Your task to perform on an android device: Go to internet settings Image 0: 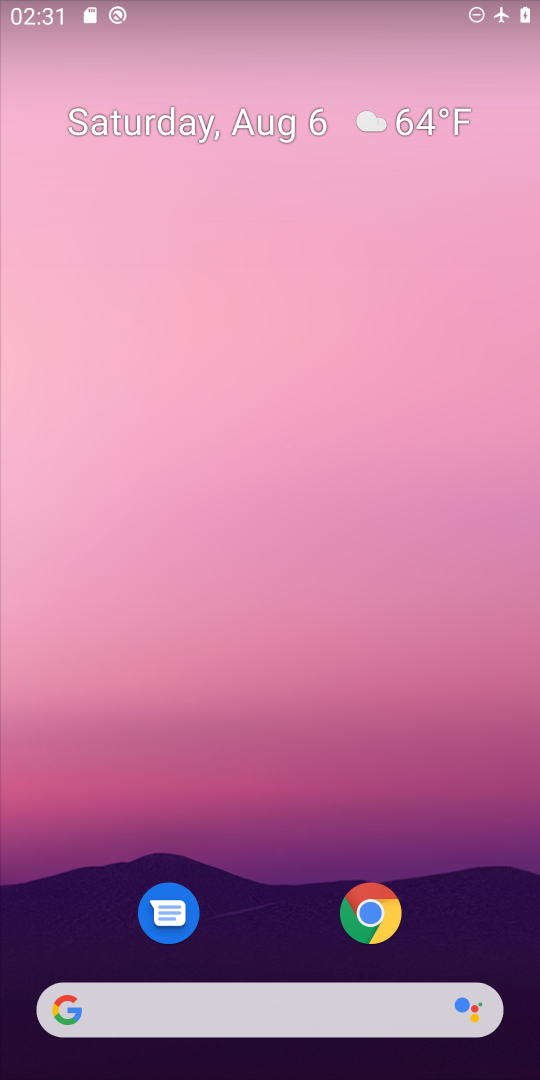
Step 0: press home button
Your task to perform on an android device: Go to internet settings Image 1: 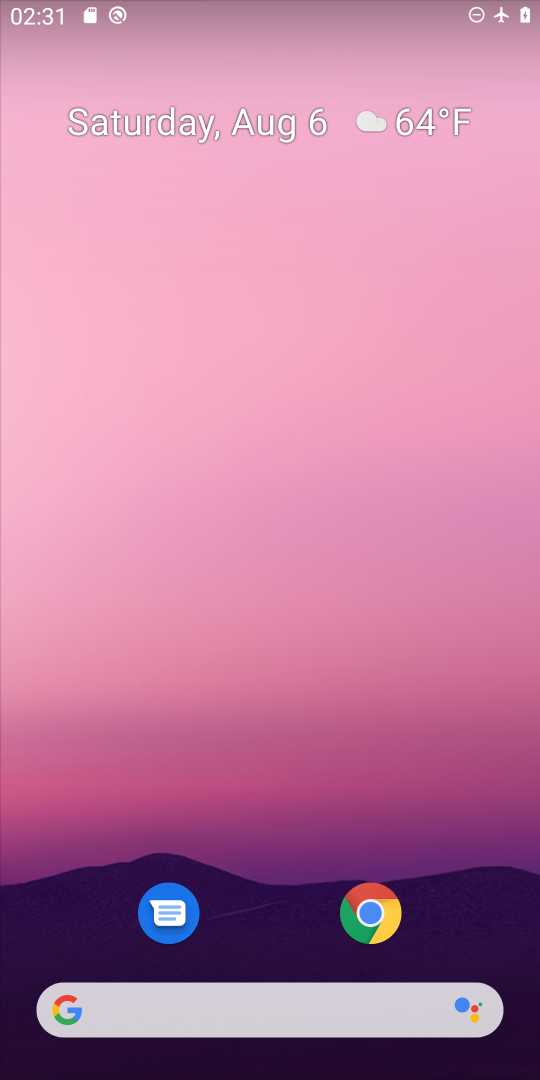
Step 1: drag from (456, 922) to (447, 277)
Your task to perform on an android device: Go to internet settings Image 2: 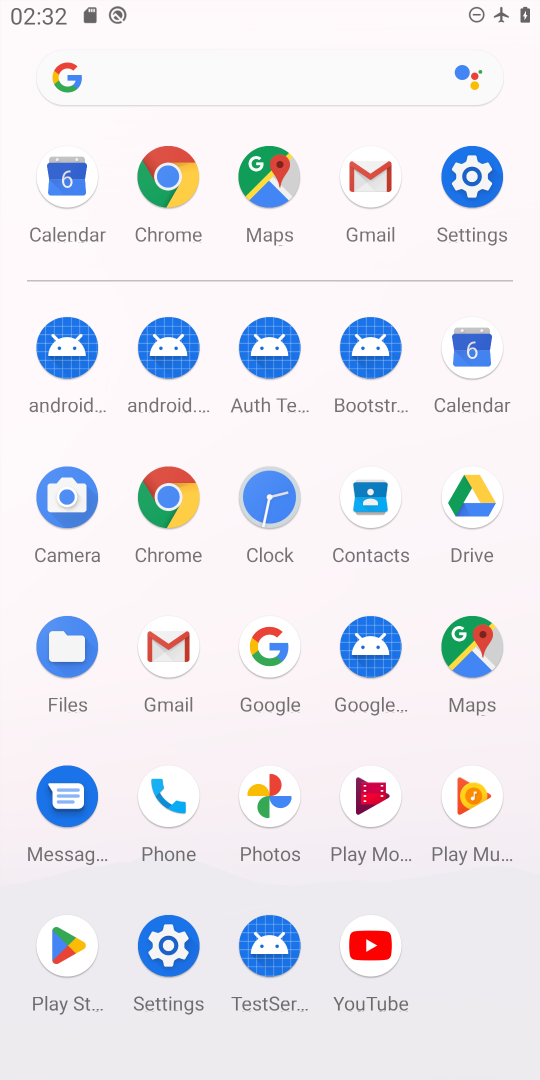
Step 2: click (479, 183)
Your task to perform on an android device: Go to internet settings Image 3: 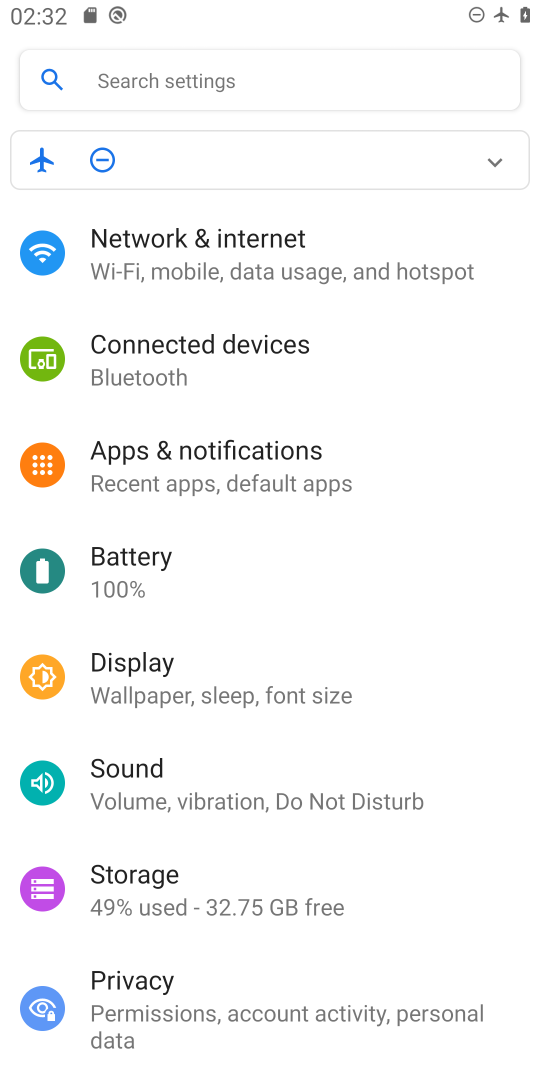
Step 3: drag from (441, 580) to (444, 449)
Your task to perform on an android device: Go to internet settings Image 4: 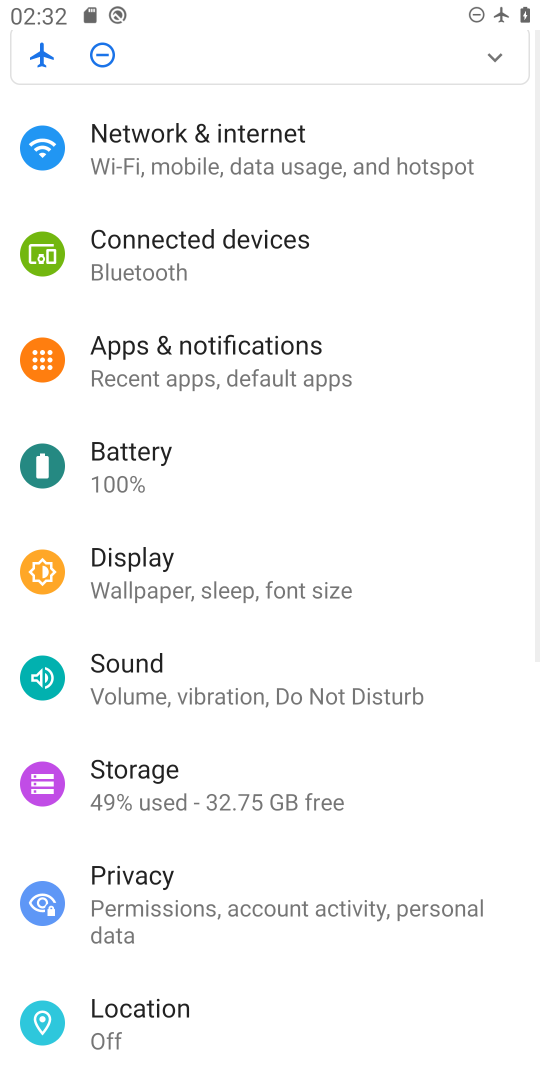
Step 4: drag from (442, 640) to (444, 461)
Your task to perform on an android device: Go to internet settings Image 5: 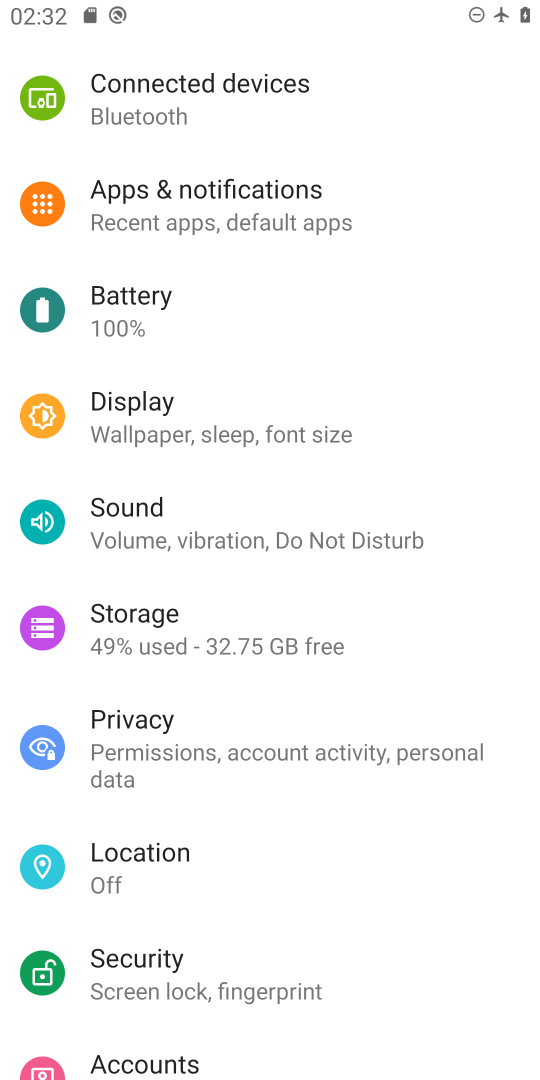
Step 5: drag from (467, 706) to (475, 509)
Your task to perform on an android device: Go to internet settings Image 6: 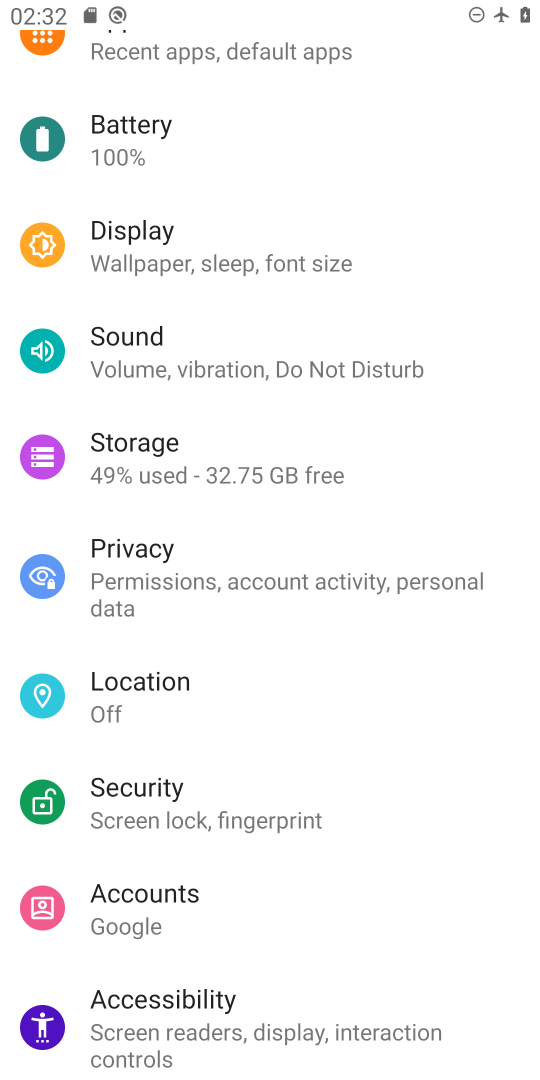
Step 6: drag from (458, 647) to (449, 456)
Your task to perform on an android device: Go to internet settings Image 7: 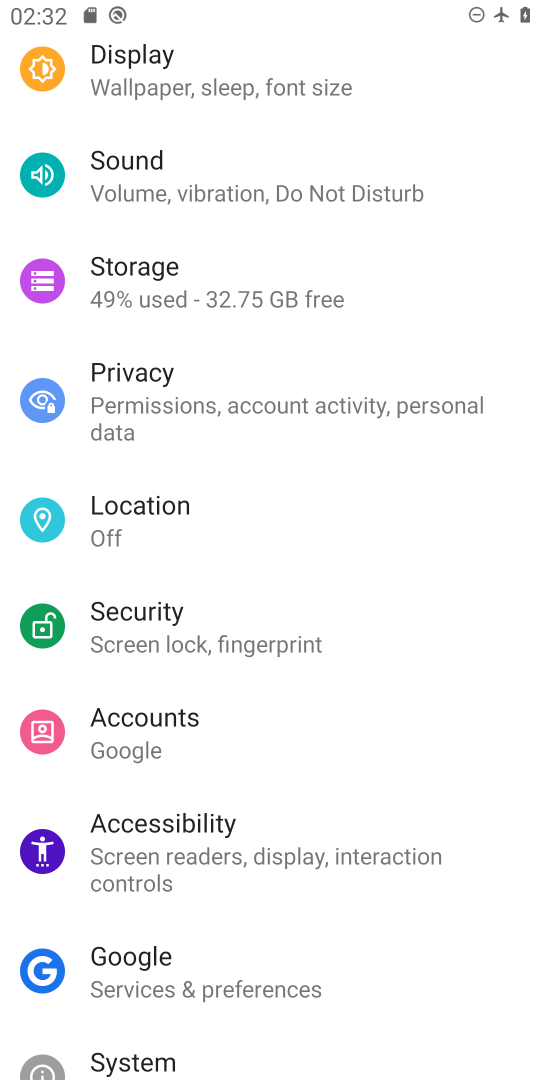
Step 7: drag from (428, 705) to (427, 514)
Your task to perform on an android device: Go to internet settings Image 8: 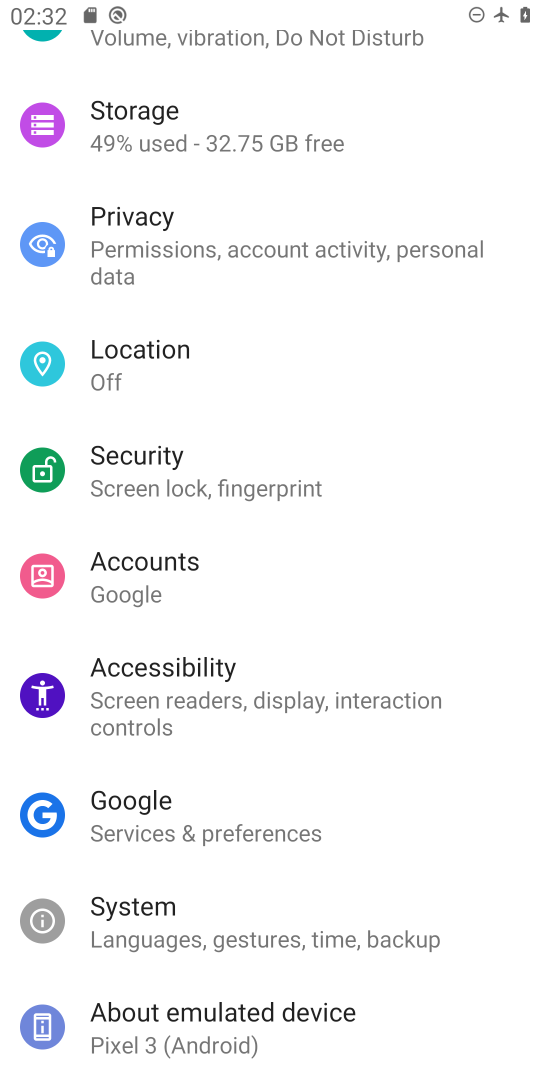
Step 8: drag from (442, 812) to (450, 603)
Your task to perform on an android device: Go to internet settings Image 9: 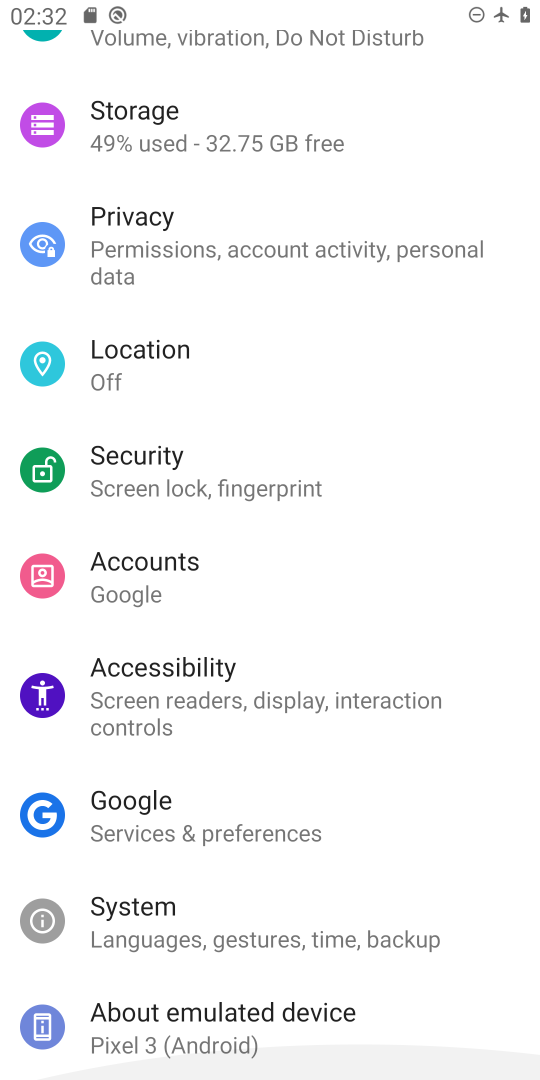
Step 9: drag from (462, 444) to (490, 621)
Your task to perform on an android device: Go to internet settings Image 10: 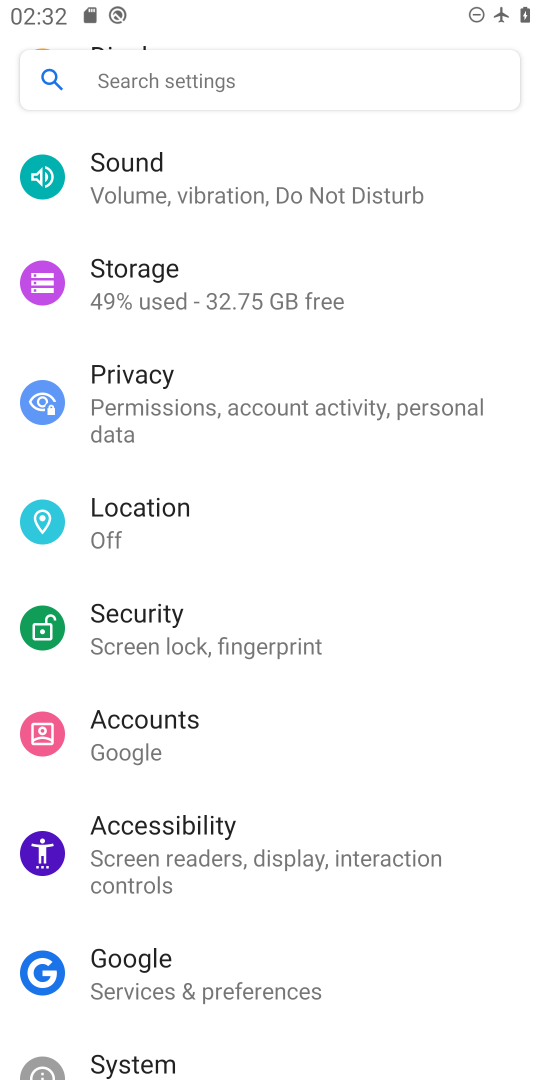
Step 10: drag from (492, 339) to (493, 614)
Your task to perform on an android device: Go to internet settings Image 11: 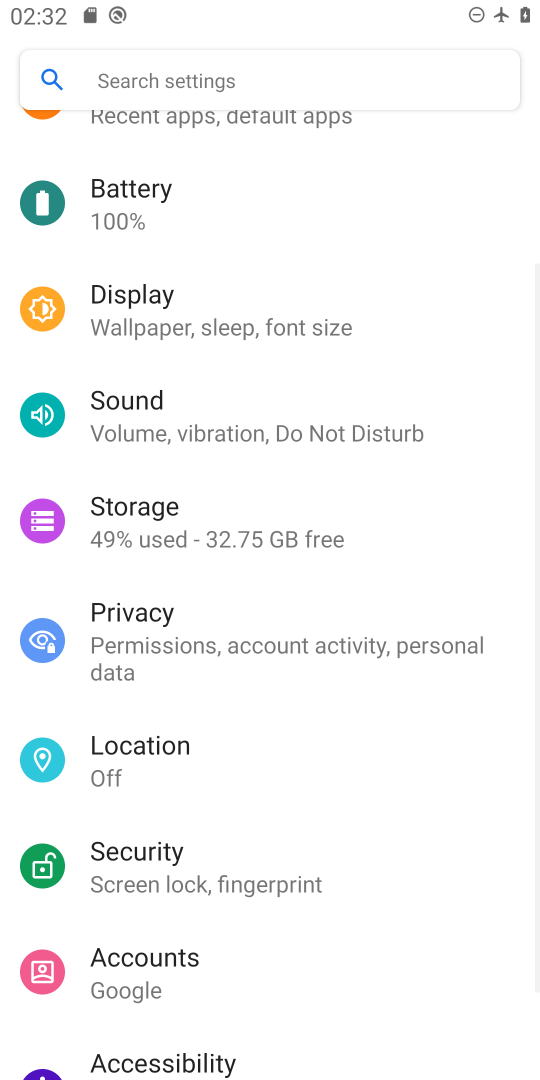
Step 11: drag from (476, 317) to (483, 586)
Your task to perform on an android device: Go to internet settings Image 12: 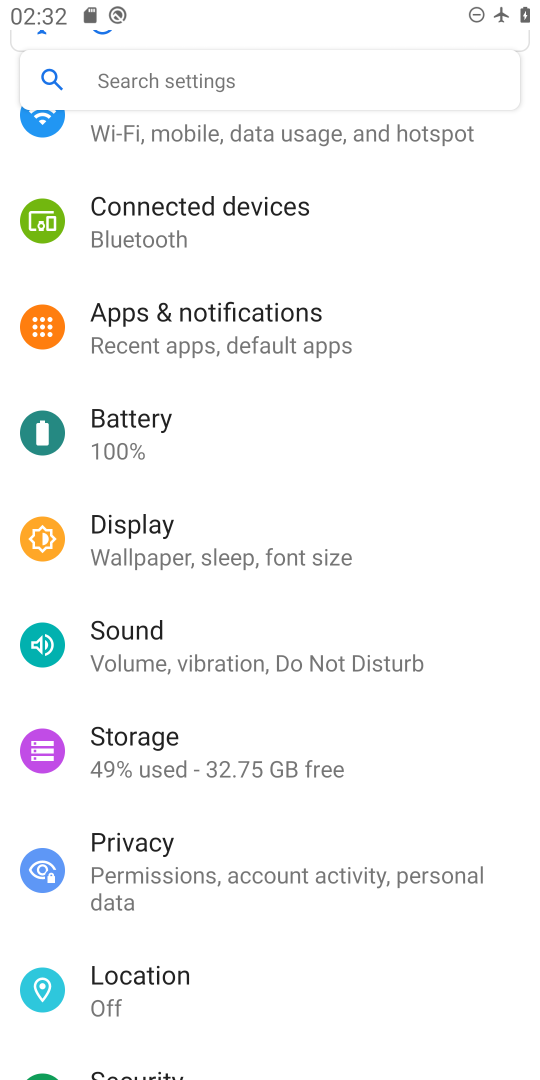
Step 12: drag from (477, 268) to (490, 506)
Your task to perform on an android device: Go to internet settings Image 13: 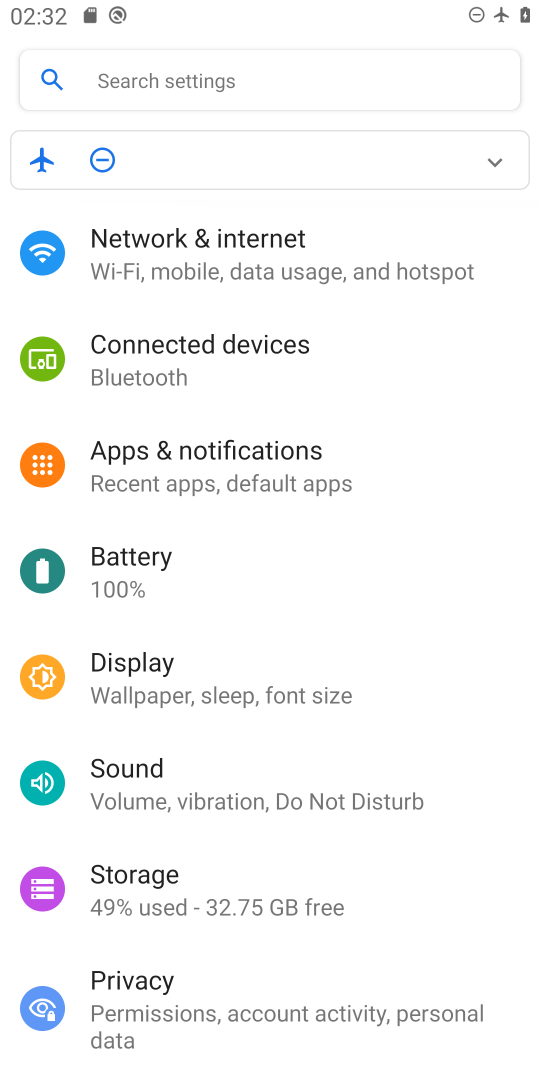
Step 13: click (396, 271)
Your task to perform on an android device: Go to internet settings Image 14: 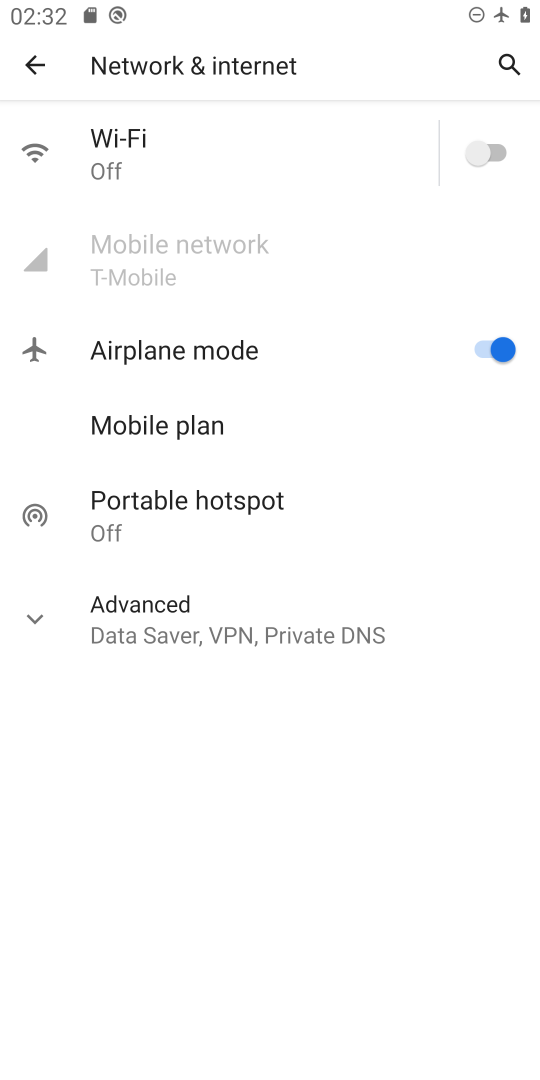
Step 14: task complete